Your task to perform on an android device: What is the recent news? Image 0: 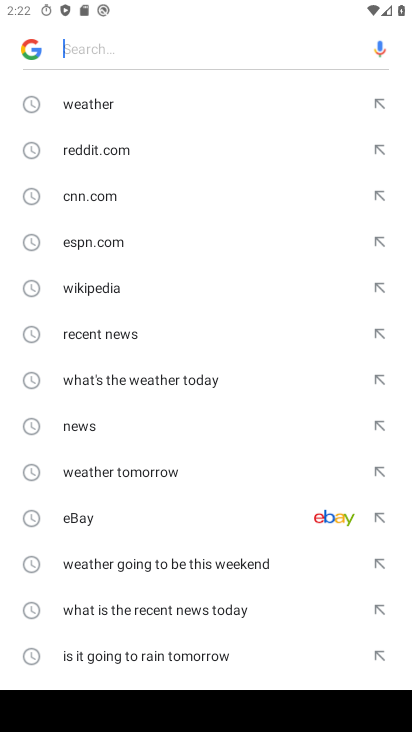
Step 0: click (169, 334)
Your task to perform on an android device: What is the recent news? Image 1: 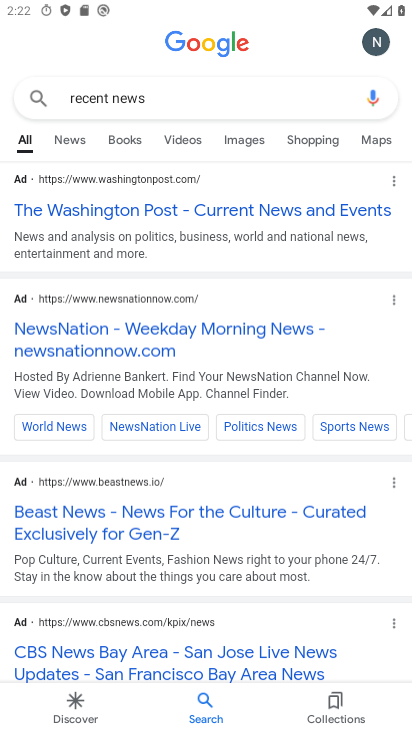
Step 1: task complete